Your task to perform on an android device: check out phone information Image 0: 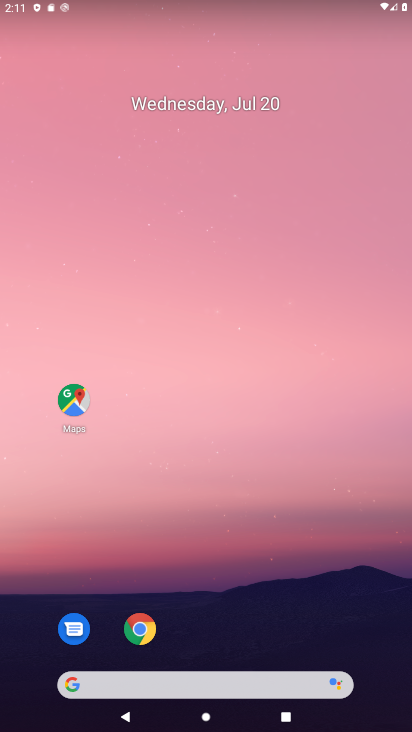
Step 0: drag from (207, 671) to (165, 226)
Your task to perform on an android device: check out phone information Image 1: 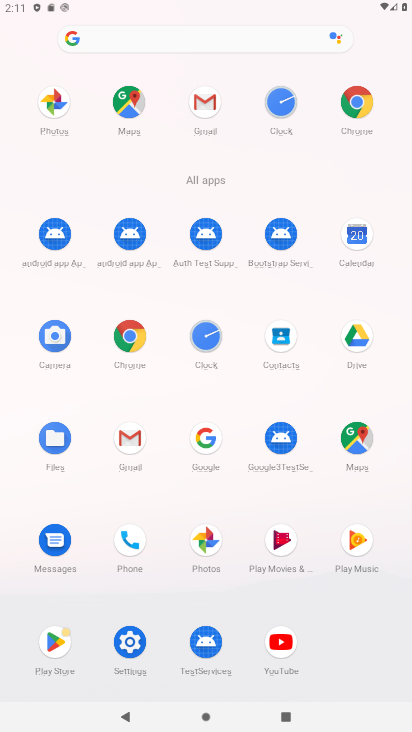
Step 1: click (144, 651)
Your task to perform on an android device: check out phone information Image 2: 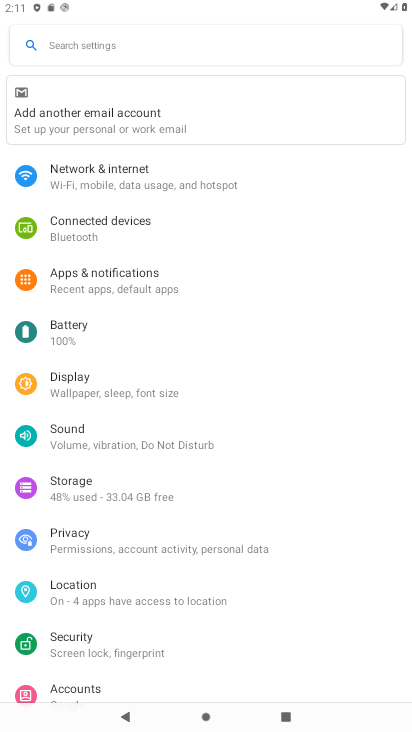
Step 2: drag from (145, 651) to (95, 191)
Your task to perform on an android device: check out phone information Image 3: 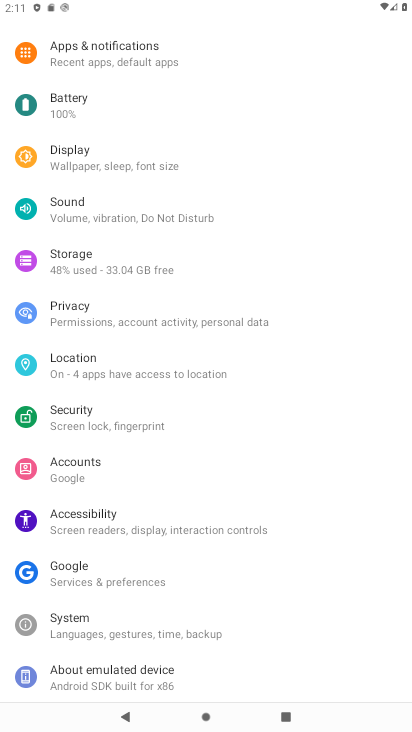
Step 3: drag from (145, 631) to (96, 279)
Your task to perform on an android device: check out phone information Image 4: 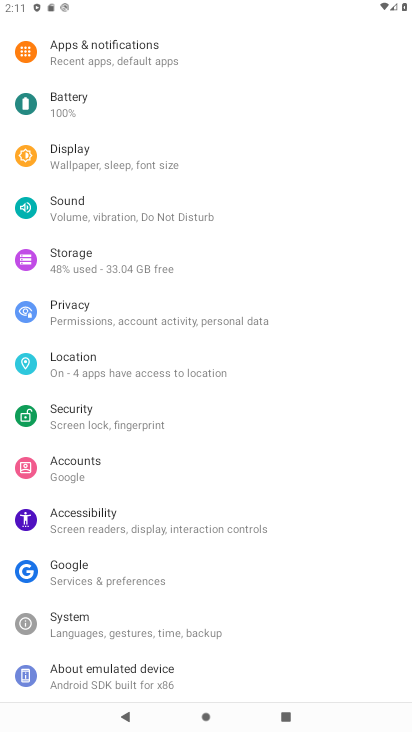
Step 4: click (102, 672)
Your task to perform on an android device: check out phone information Image 5: 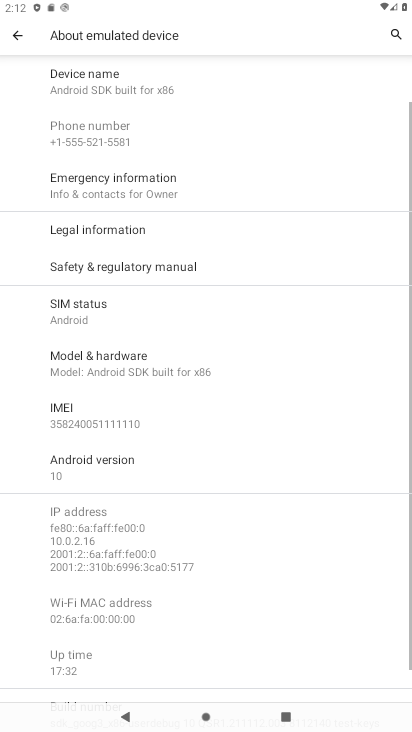
Step 5: task complete